Your task to perform on an android device: Go to Reddit.com Image 0: 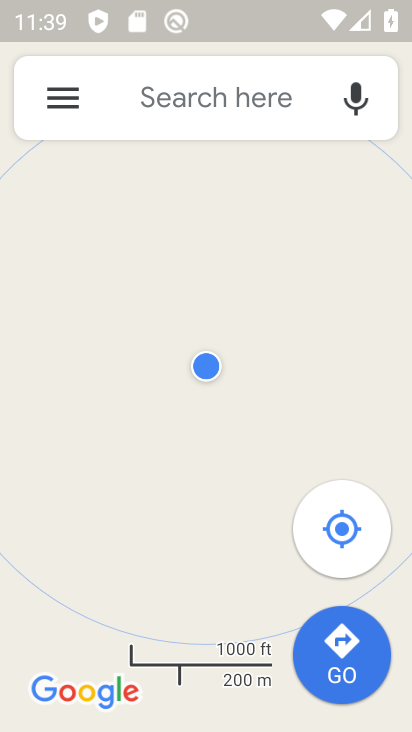
Step 0: press home button
Your task to perform on an android device: Go to Reddit.com Image 1: 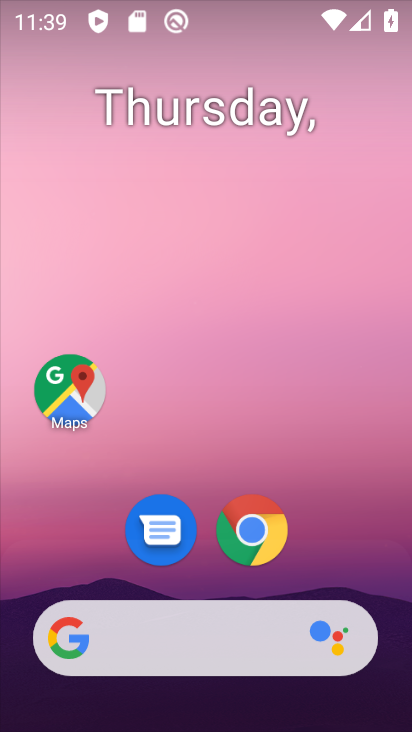
Step 1: click (254, 530)
Your task to perform on an android device: Go to Reddit.com Image 2: 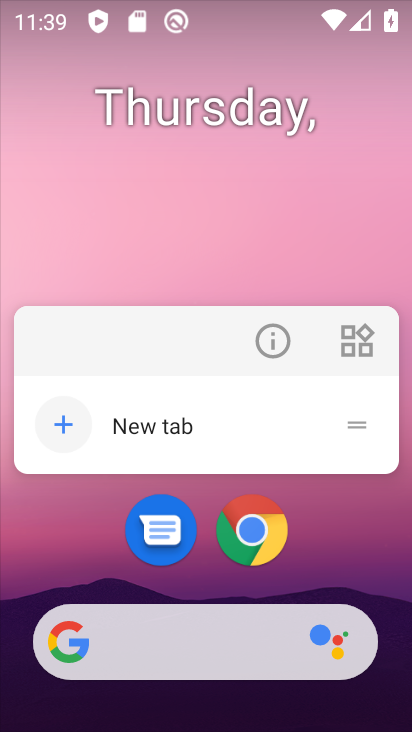
Step 2: click (254, 530)
Your task to perform on an android device: Go to Reddit.com Image 3: 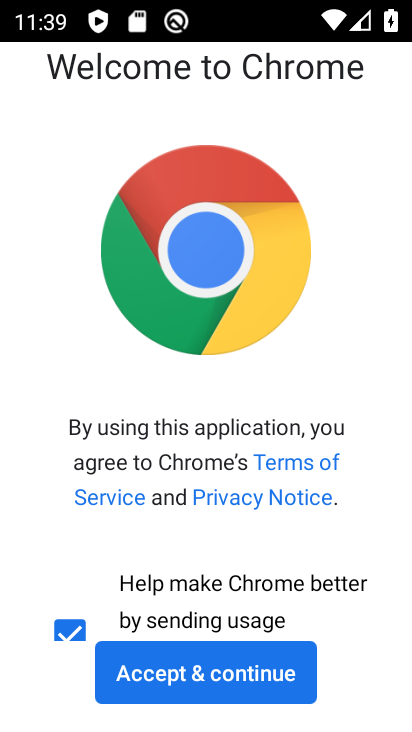
Step 3: click (216, 683)
Your task to perform on an android device: Go to Reddit.com Image 4: 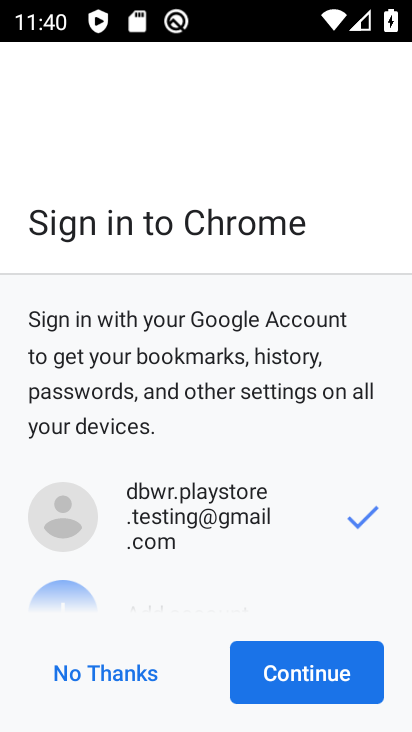
Step 4: click (305, 674)
Your task to perform on an android device: Go to Reddit.com Image 5: 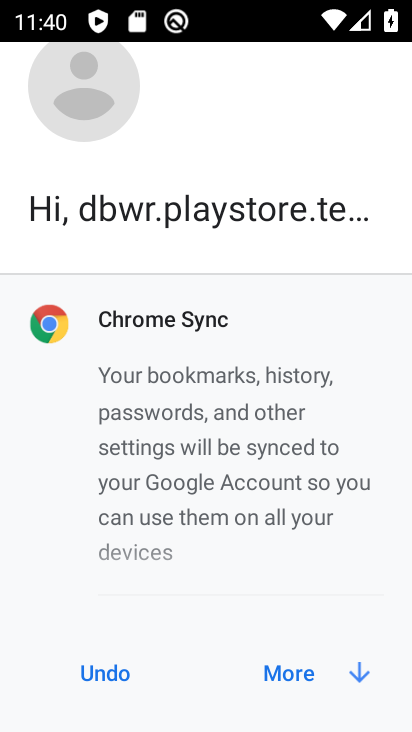
Step 5: click (305, 674)
Your task to perform on an android device: Go to Reddit.com Image 6: 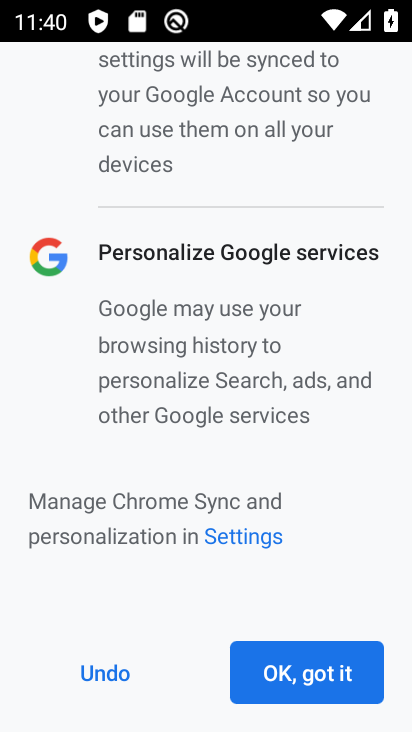
Step 6: click (305, 674)
Your task to perform on an android device: Go to Reddit.com Image 7: 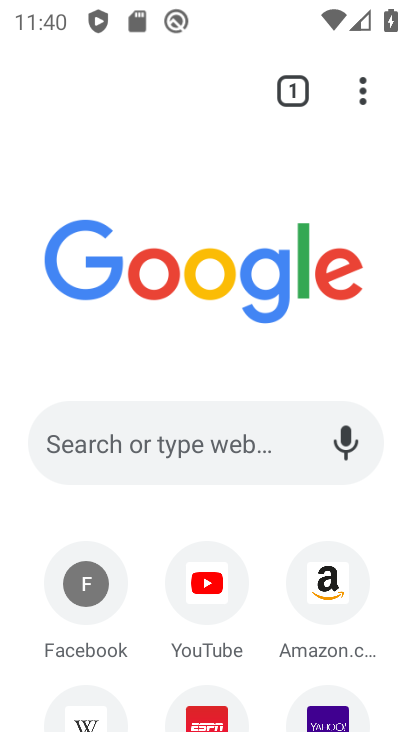
Step 7: click (236, 443)
Your task to perform on an android device: Go to Reddit.com Image 8: 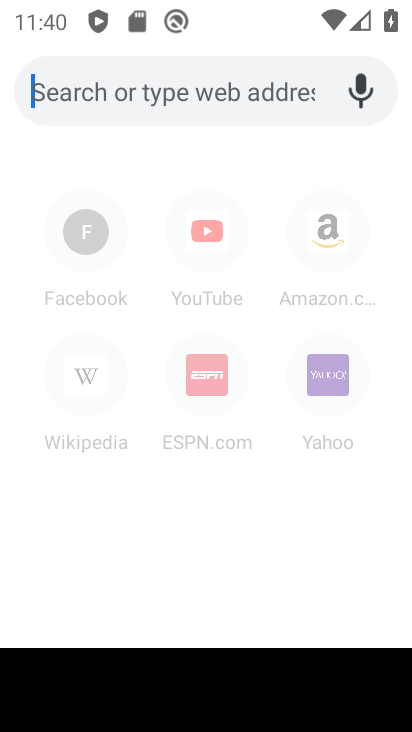
Step 8: type "Reddit.com"
Your task to perform on an android device: Go to Reddit.com Image 9: 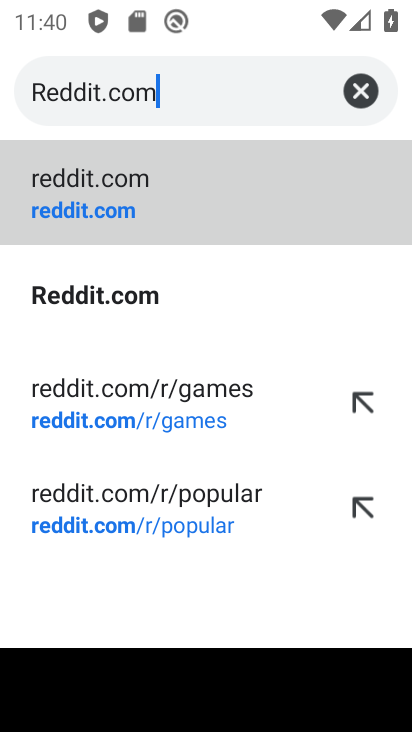
Step 9: click (138, 299)
Your task to perform on an android device: Go to Reddit.com Image 10: 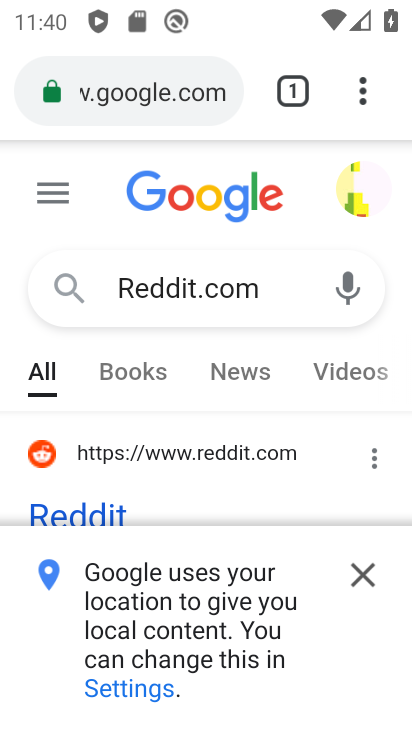
Step 10: click (361, 576)
Your task to perform on an android device: Go to Reddit.com Image 11: 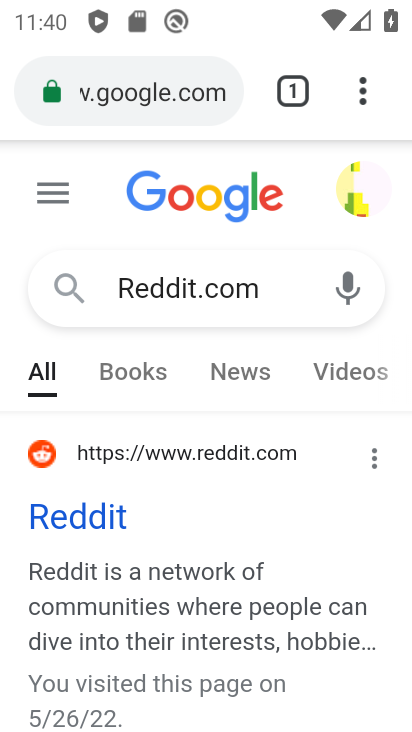
Step 11: click (106, 532)
Your task to perform on an android device: Go to Reddit.com Image 12: 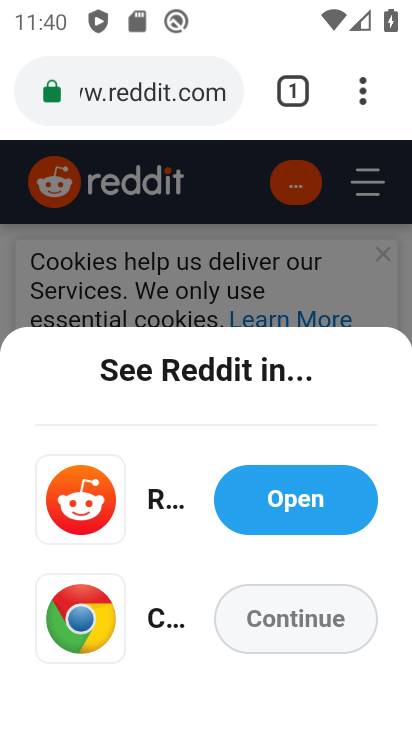
Step 12: click (282, 608)
Your task to perform on an android device: Go to Reddit.com Image 13: 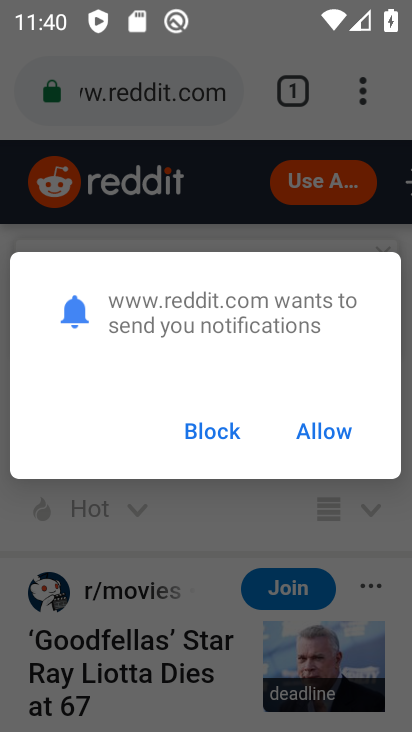
Step 13: click (322, 423)
Your task to perform on an android device: Go to Reddit.com Image 14: 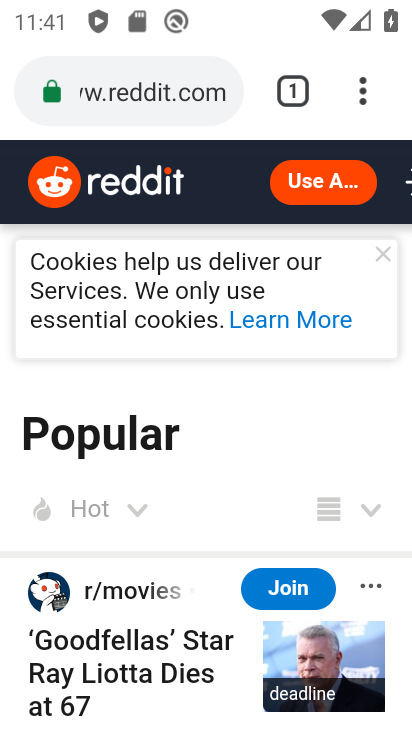
Step 14: task complete